Your task to perform on an android device: move a message to another label in the gmail app Image 0: 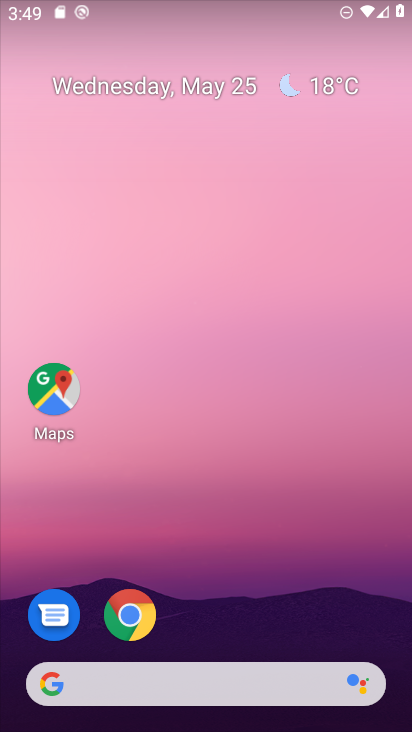
Step 0: drag from (257, 564) to (319, 30)
Your task to perform on an android device: move a message to another label in the gmail app Image 1: 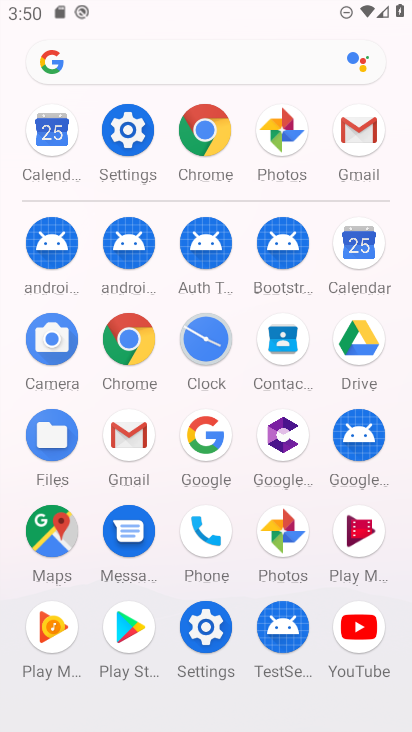
Step 1: click (357, 123)
Your task to perform on an android device: move a message to another label in the gmail app Image 2: 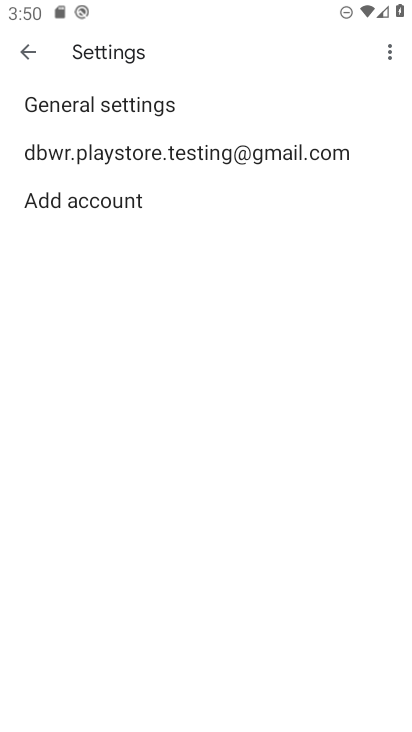
Step 2: click (32, 50)
Your task to perform on an android device: move a message to another label in the gmail app Image 3: 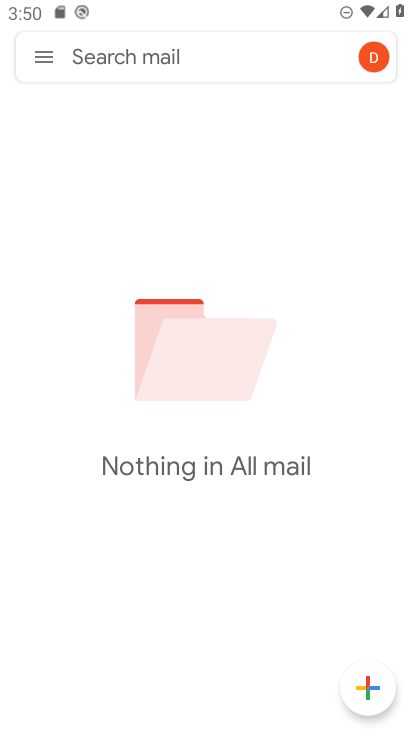
Step 3: task complete